Your task to perform on an android device: set default search engine in the chrome app Image 0: 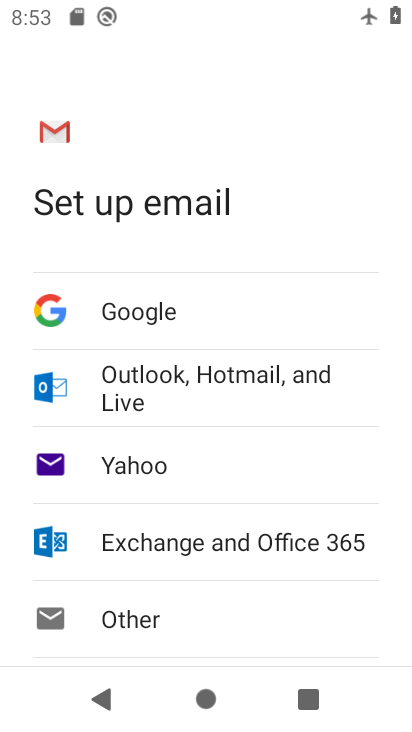
Step 0: press home button
Your task to perform on an android device: set default search engine in the chrome app Image 1: 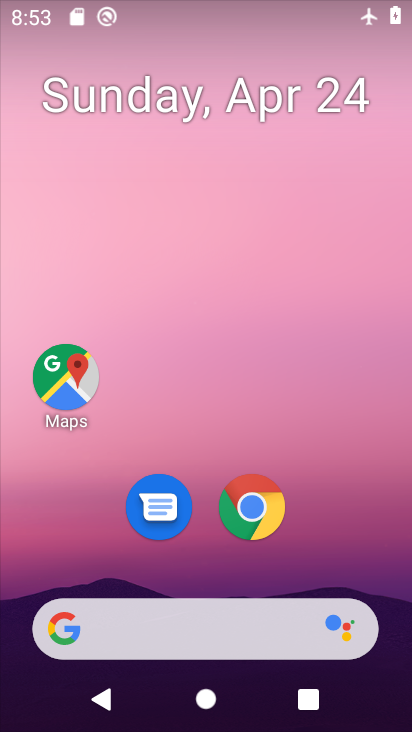
Step 1: click (270, 506)
Your task to perform on an android device: set default search engine in the chrome app Image 2: 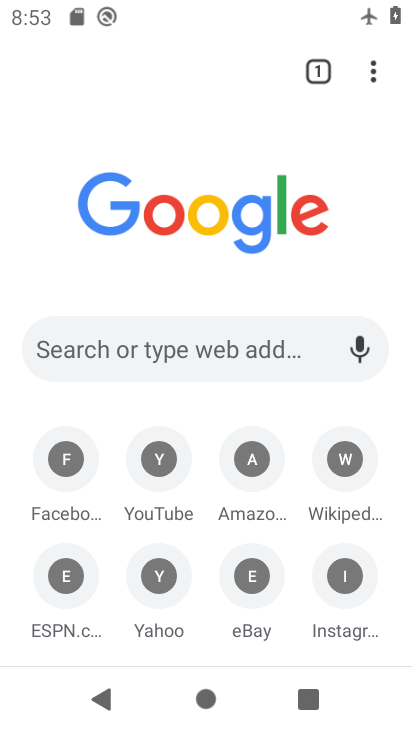
Step 2: click (377, 68)
Your task to perform on an android device: set default search engine in the chrome app Image 3: 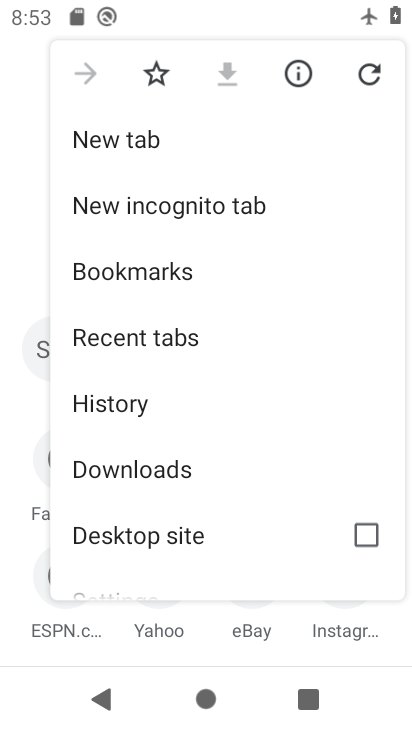
Step 3: drag from (230, 418) to (212, 158)
Your task to perform on an android device: set default search engine in the chrome app Image 4: 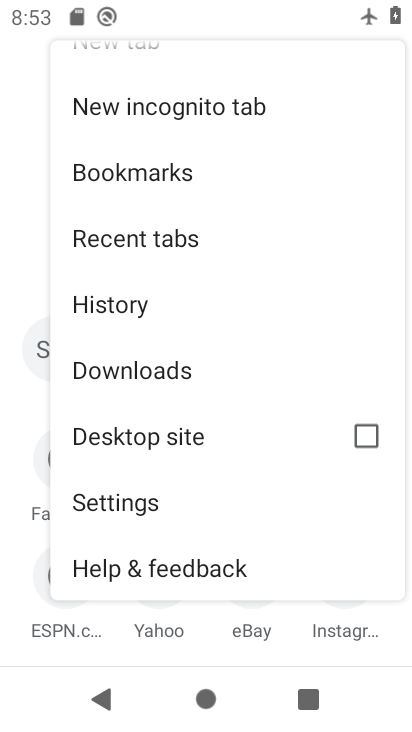
Step 4: click (166, 495)
Your task to perform on an android device: set default search engine in the chrome app Image 5: 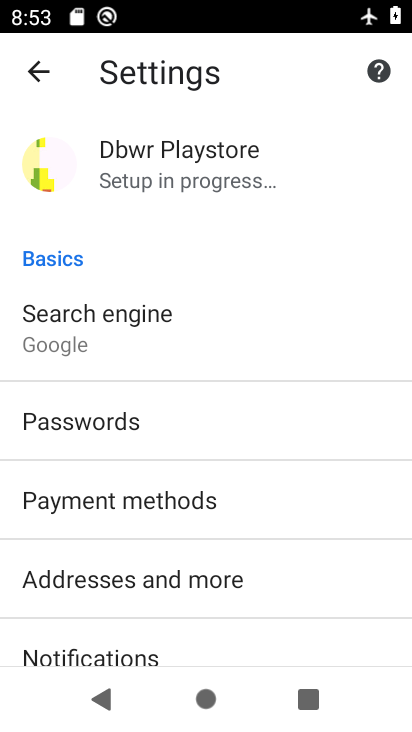
Step 5: click (134, 327)
Your task to perform on an android device: set default search engine in the chrome app Image 6: 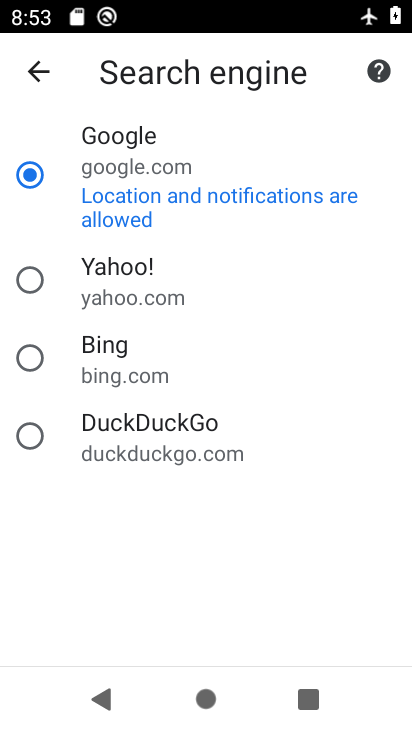
Step 6: click (119, 441)
Your task to perform on an android device: set default search engine in the chrome app Image 7: 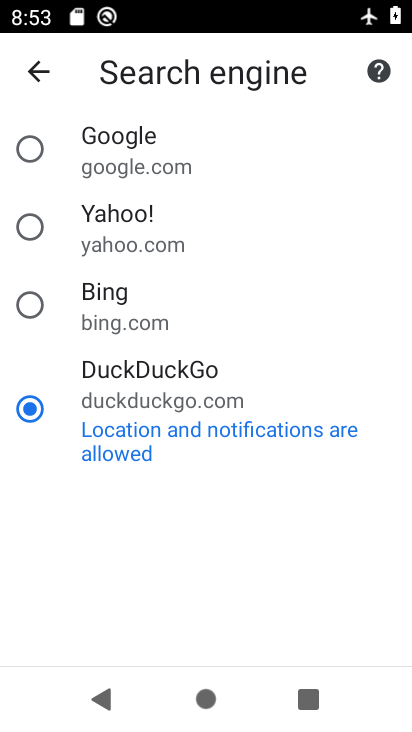
Step 7: task complete